Your task to perform on an android device: Search for the best rated drill on Lowes.com Image 0: 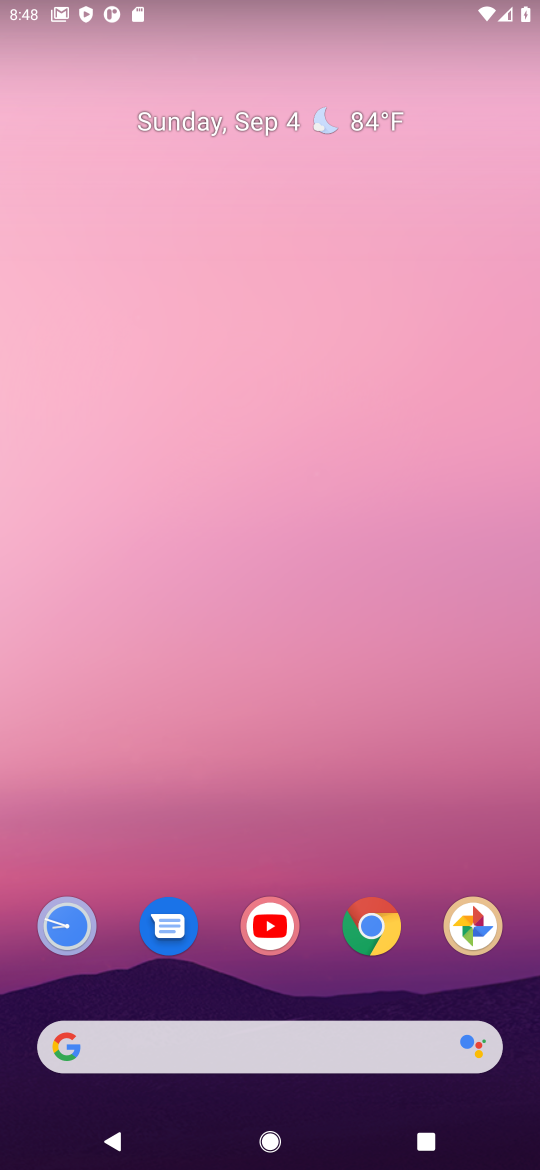
Step 0: click (265, 1035)
Your task to perform on an android device: Search for the best rated drill on Lowes.com Image 1: 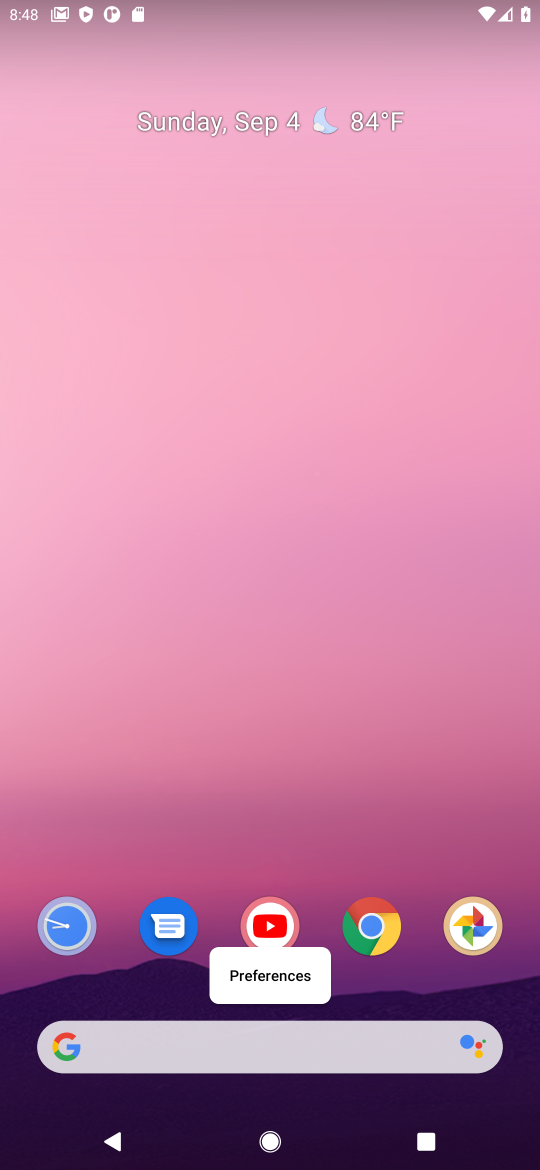
Step 1: click (163, 1044)
Your task to perform on an android device: Search for the best rated drill on Lowes.com Image 2: 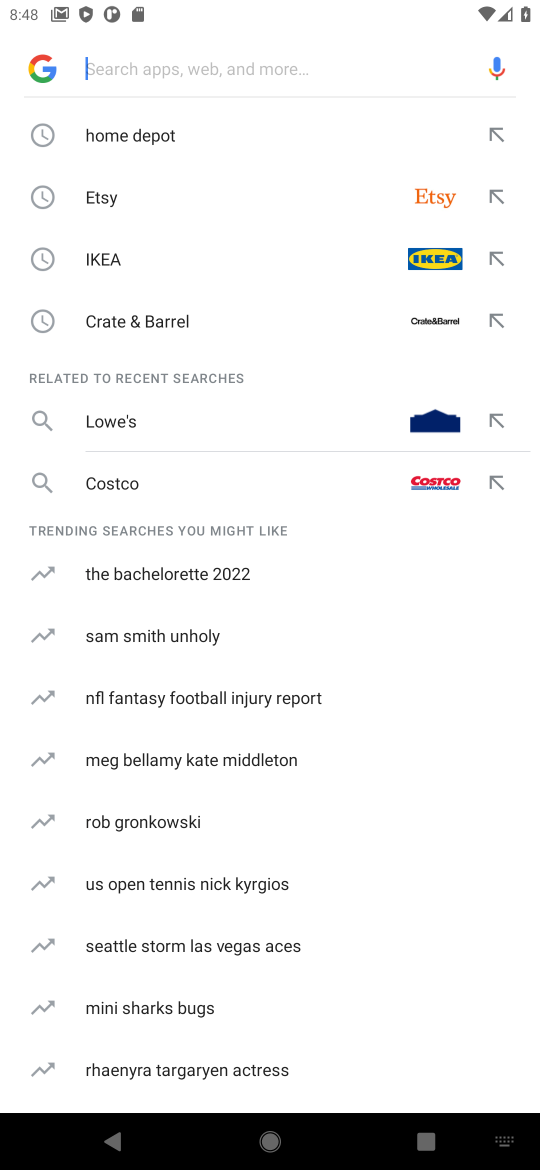
Step 2: type "lowes.com"
Your task to perform on an android device: Search for the best rated drill on Lowes.com Image 3: 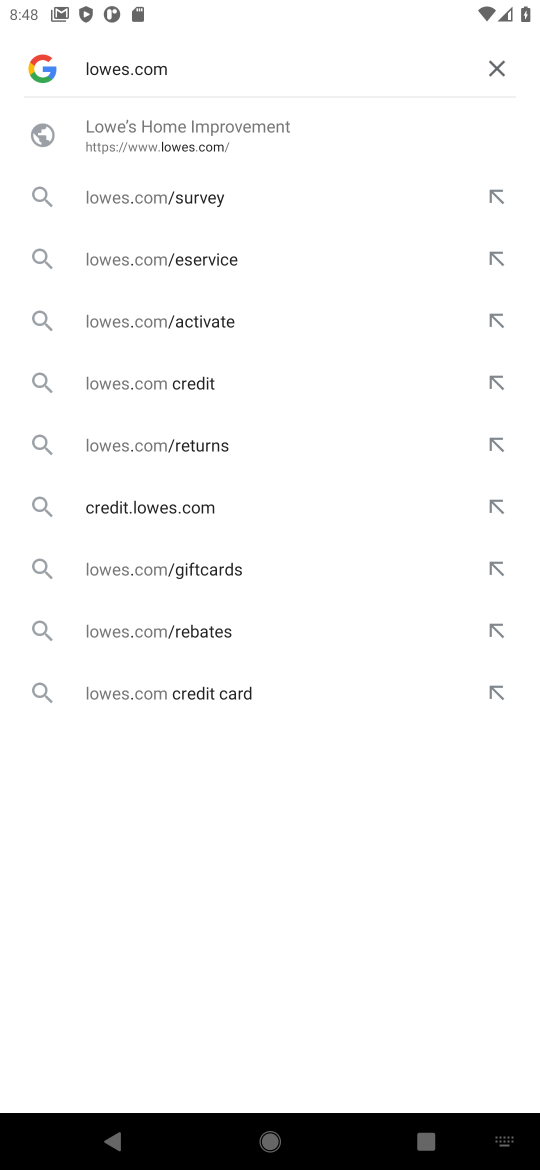
Step 3: click (190, 120)
Your task to perform on an android device: Search for the best rated drill on Lowes.com Image 4: 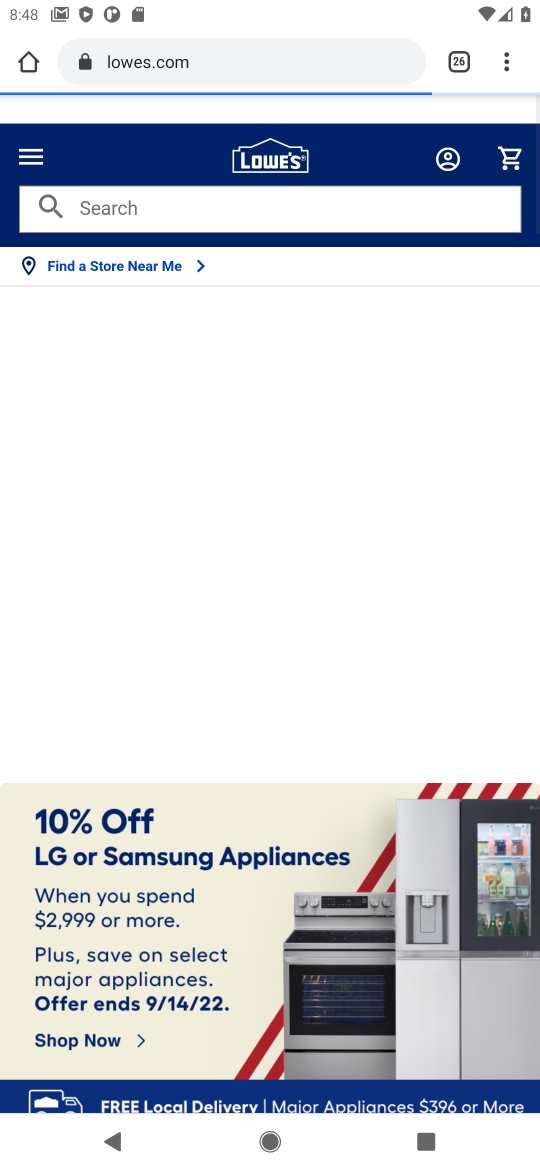
Step 4: click (203, 197)
Your task to perform on an android device: Search for the best rated drill on Lowes.com Image 5: 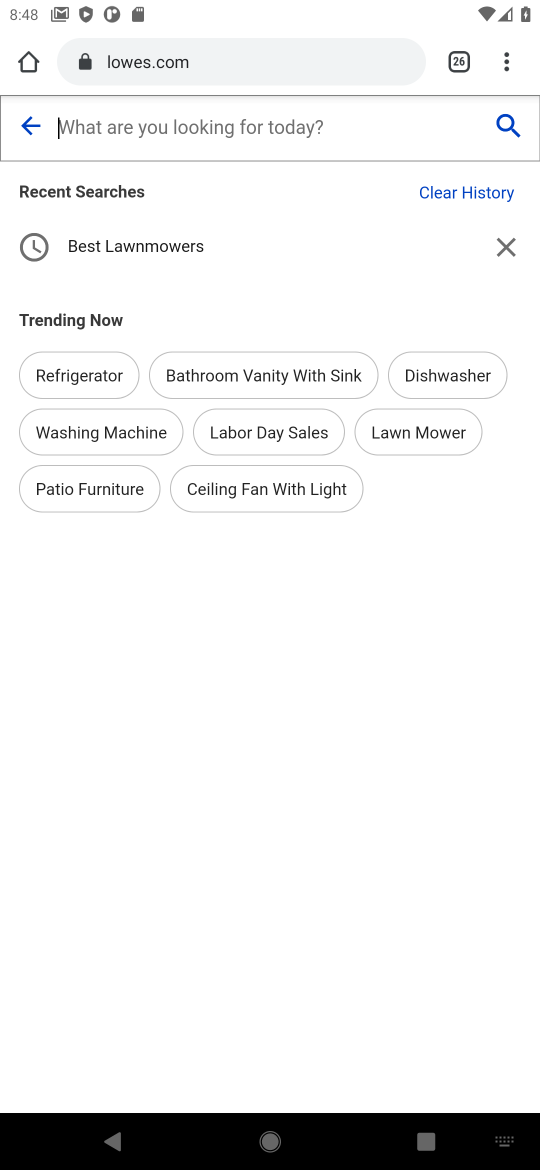
Step 5: type "best rated drill"
Your task to perform on an android device: Search for the best rated drill on Lowes.com Image 6: 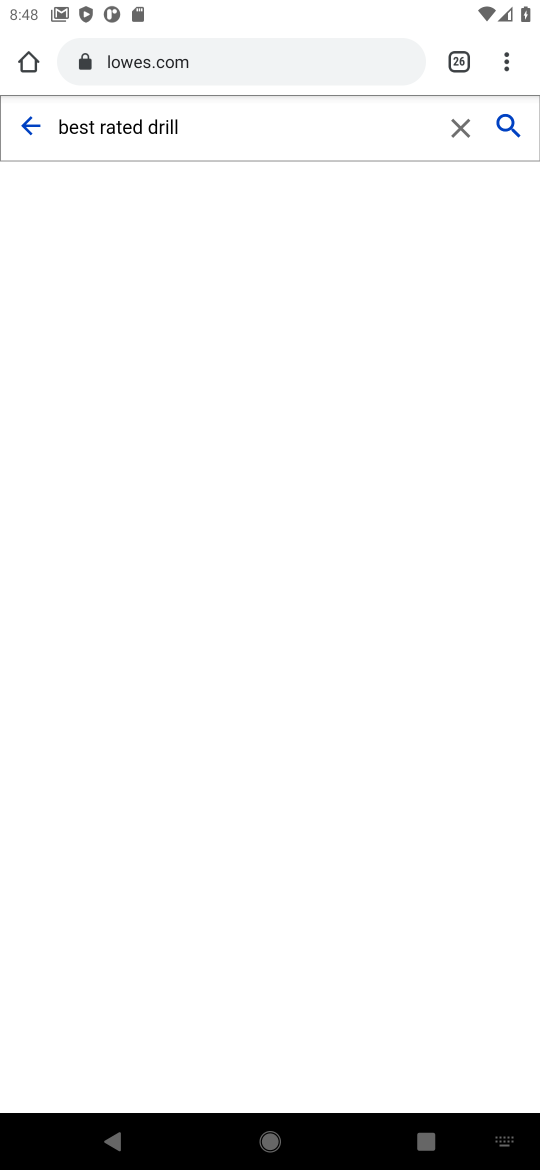
Step 6: click (500, 122)
Your task to perform on an android device: Search for the best rated drill on Lowes.com Image 7: 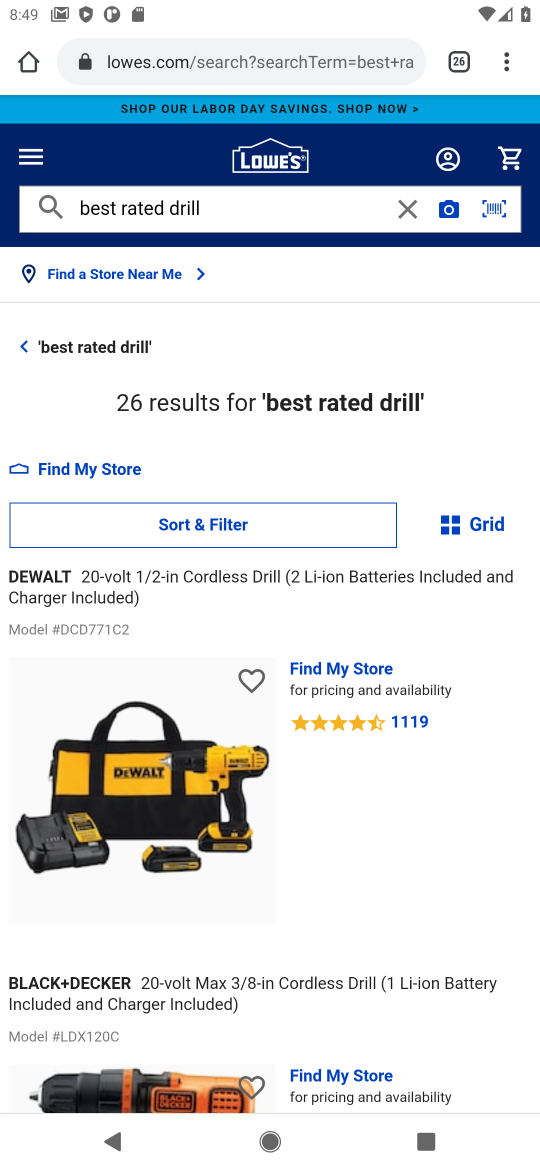
Step 7: task complete